Your task to perform on an android device: Go to eBay Image 0: 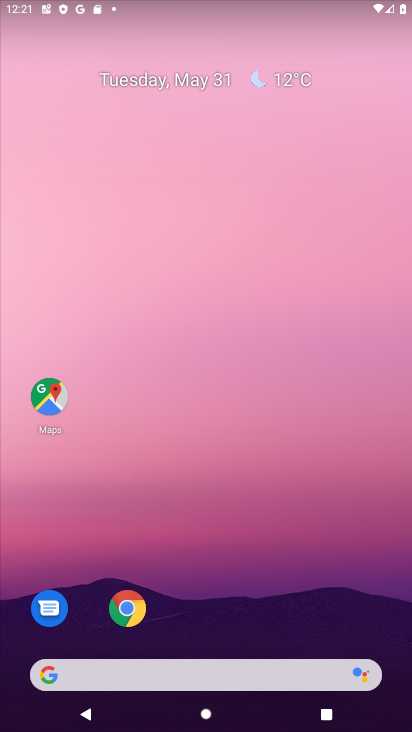
Step 0: drag from (235, 604) to (240, 29)
Your task to perform on an android device: Go to eBay Image 1: 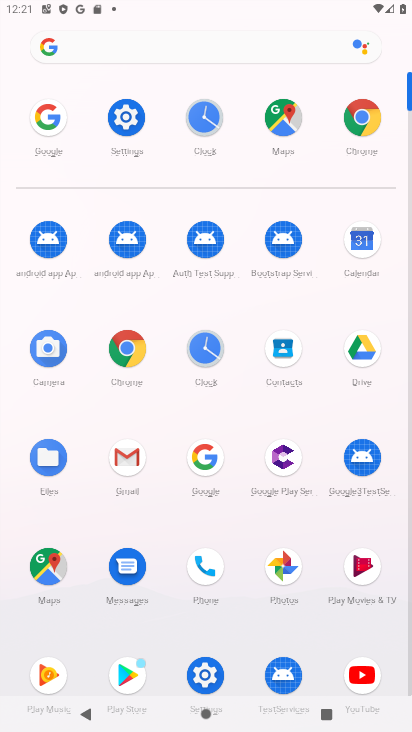
Step 1: click (44, 123)
Your task to perform on an android device: Go to eBay Image 2: 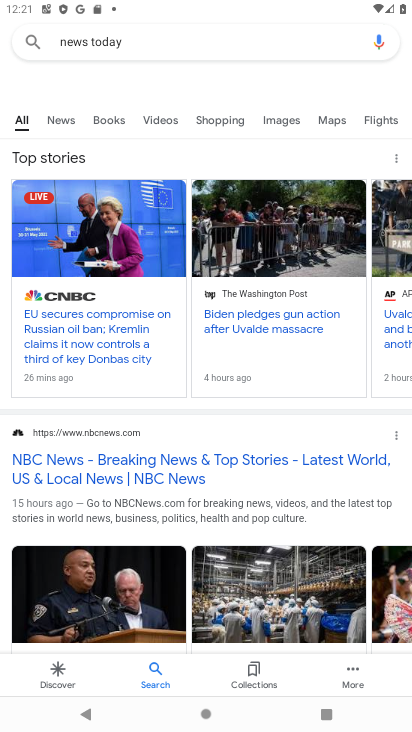
Step 2: click (209, 40)
Your task to perform on an android device: Go to eBay Image 3: 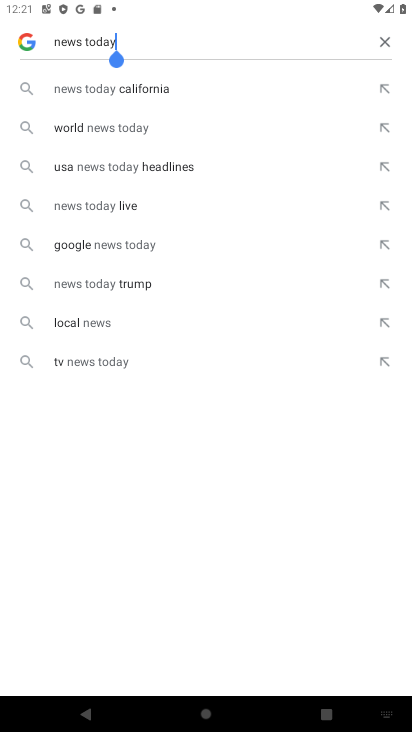
Step 3: click (377, 39)
Your task to perform on an android device: Go to eBay Image 4: 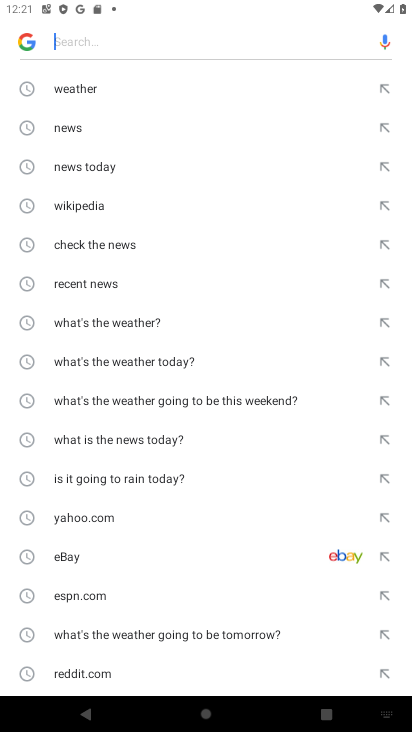
Step 4: click (67, 553)
Your task to perform on an android device: Go to eBay Image 5: 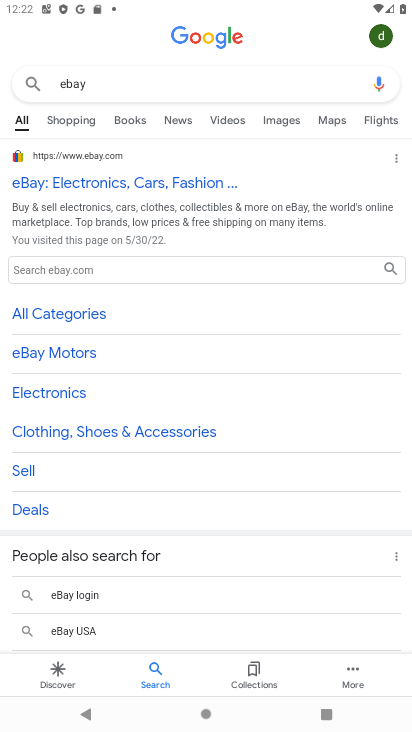
Step 5: task complete